Your task to perform on an android device: turn on wifi Image 0: 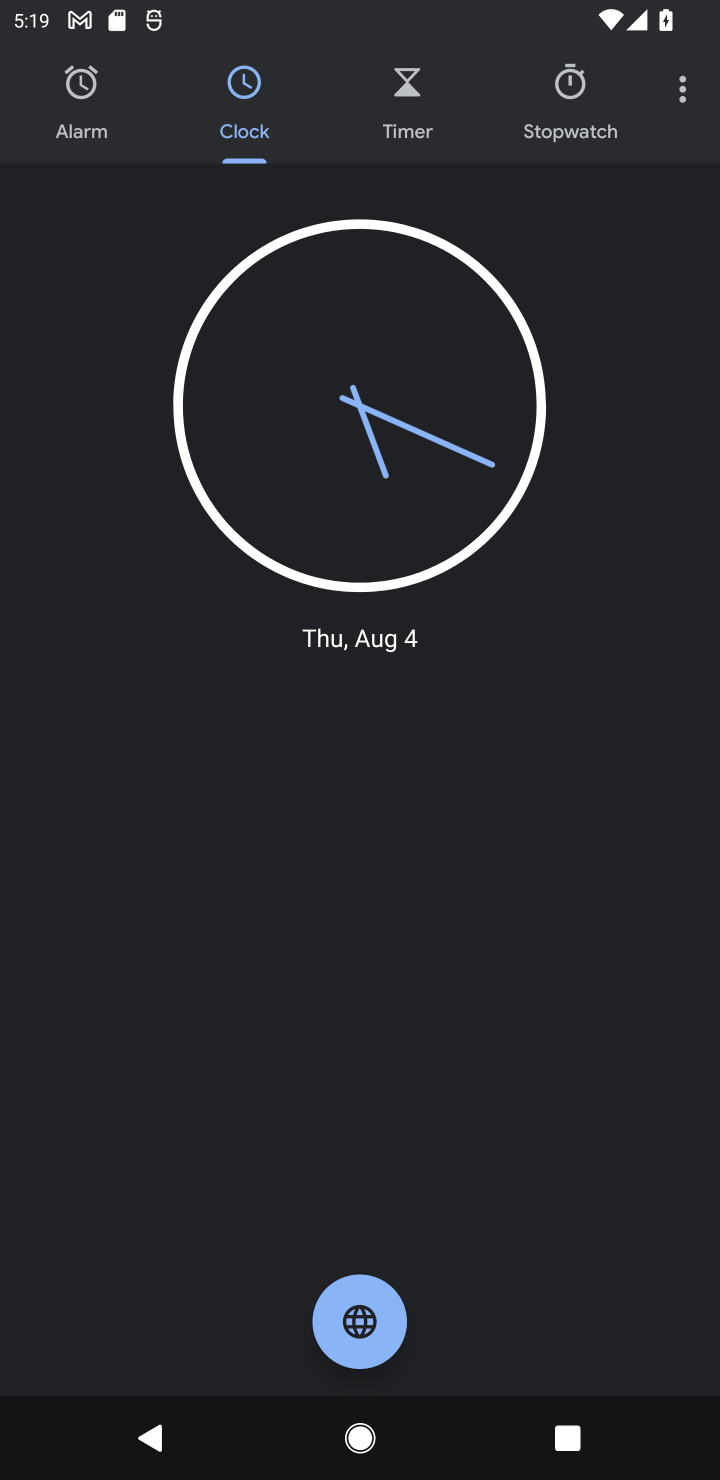
Step 0: press home button
Your task to perform on an android device: turn on wifi Image 1: 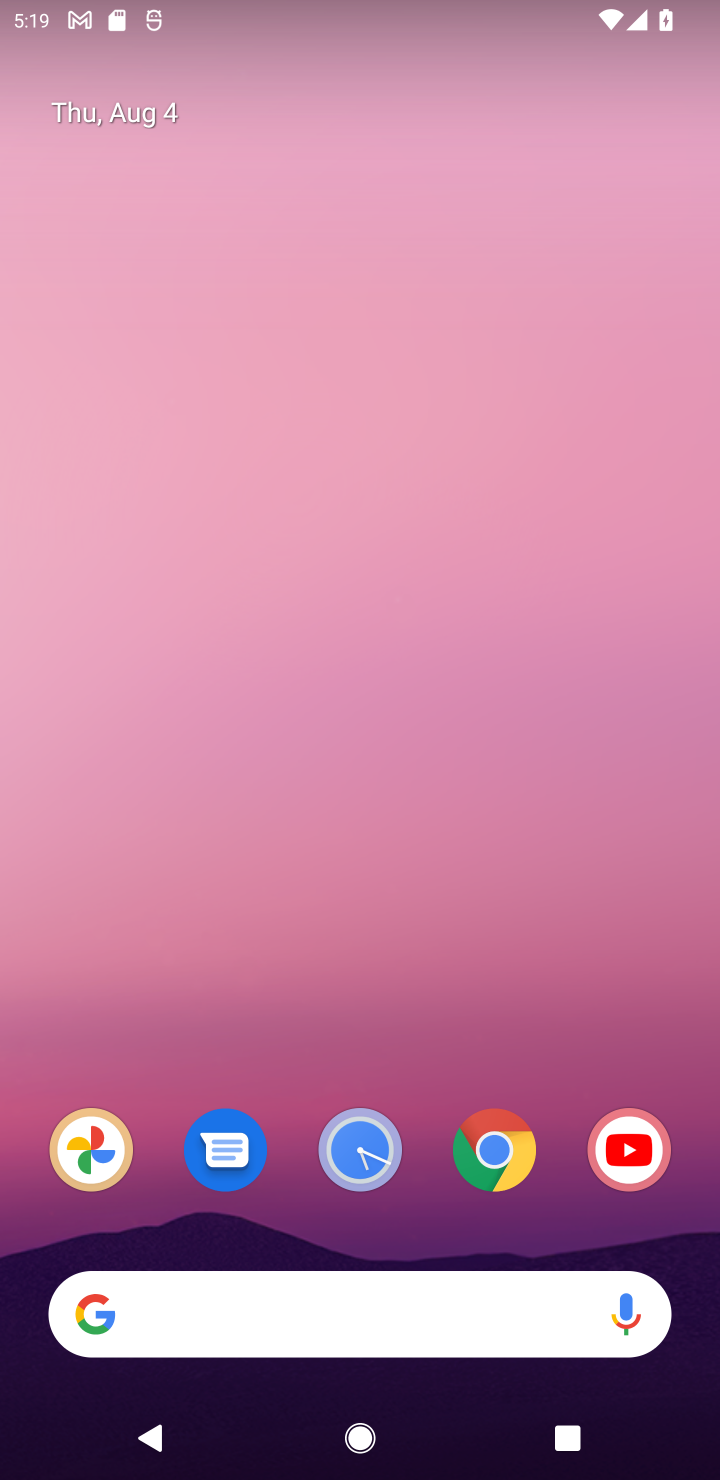
Step 1: drag from (291, 1227) to (515, 2)
Your task to perform on an android device: turn on wifi Image 2: 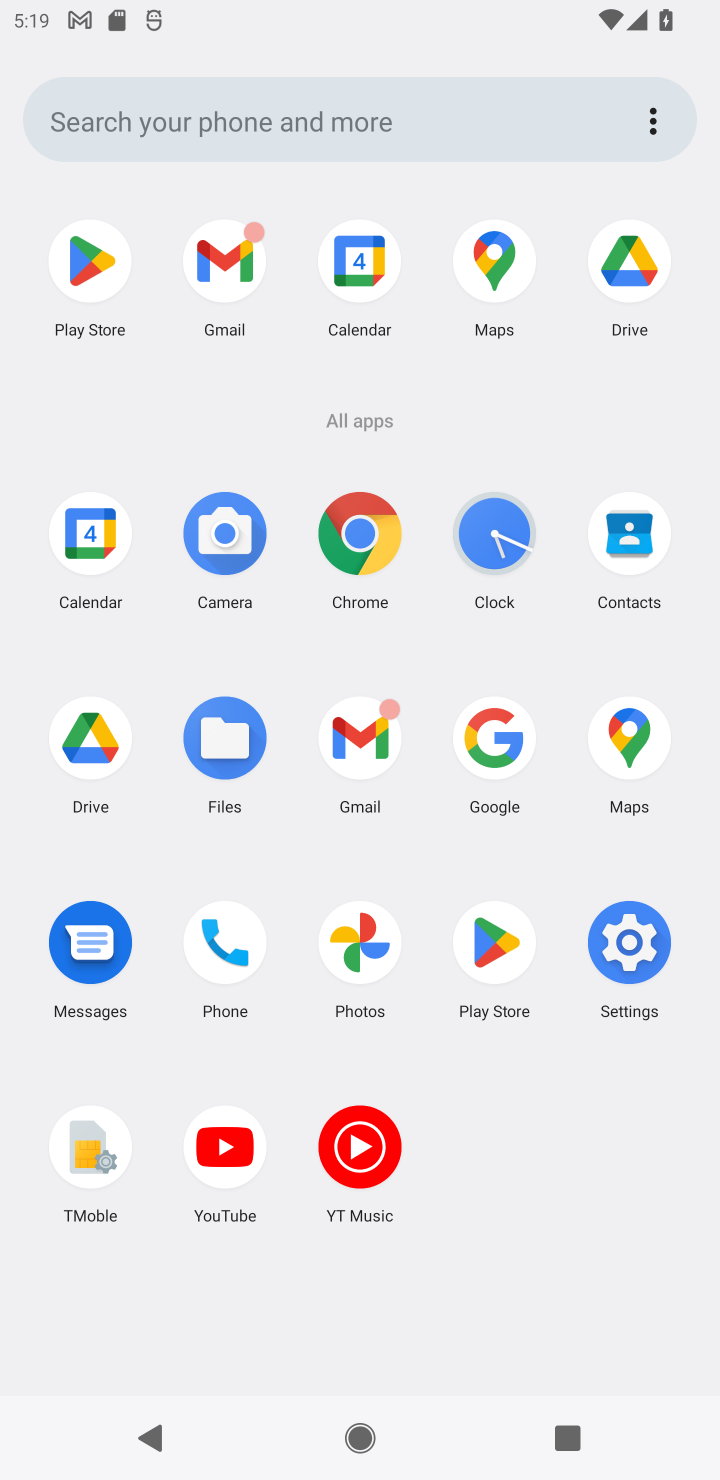
Step 2: click (625, 953)
Your task to perform on an android device: turn on wifi Image 3: 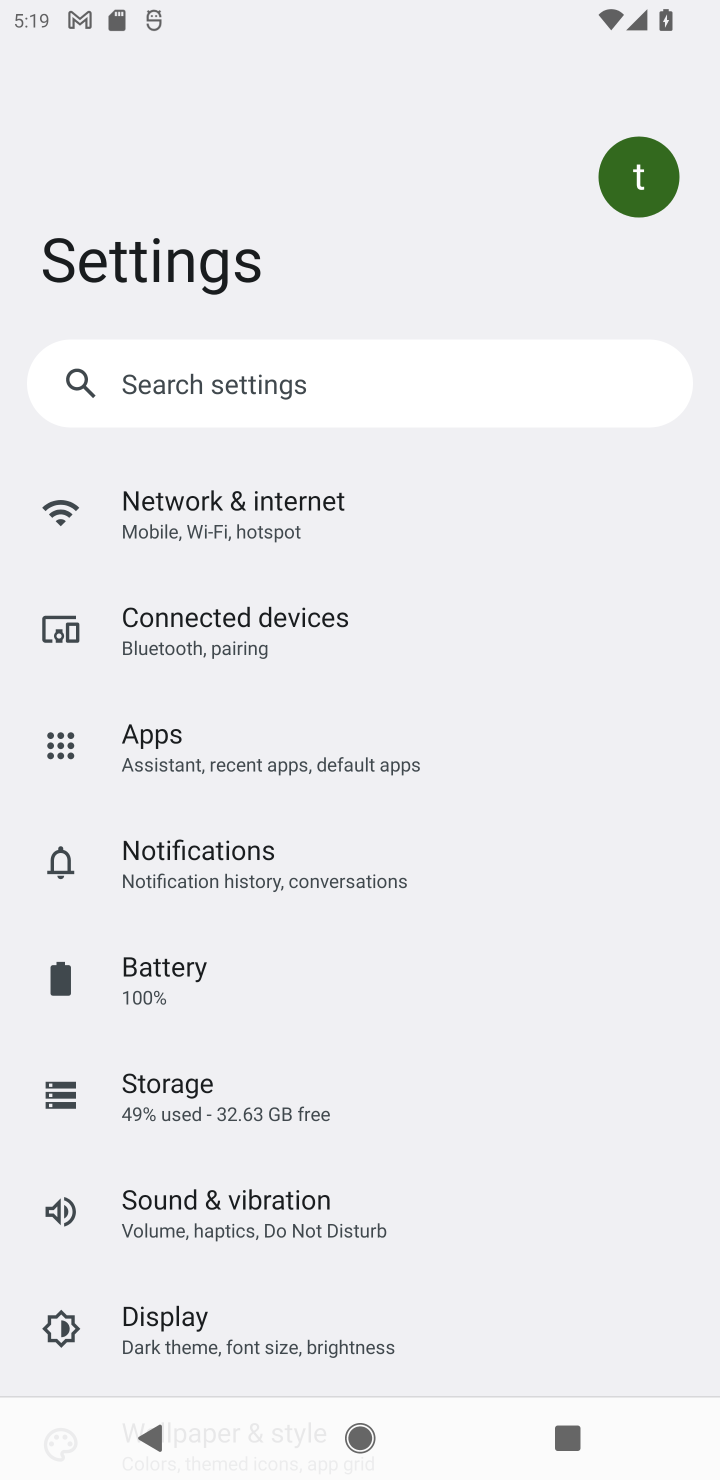
Step 3: click (287, 512)
Your task to perform on an android device: turn on wifi Image 4: 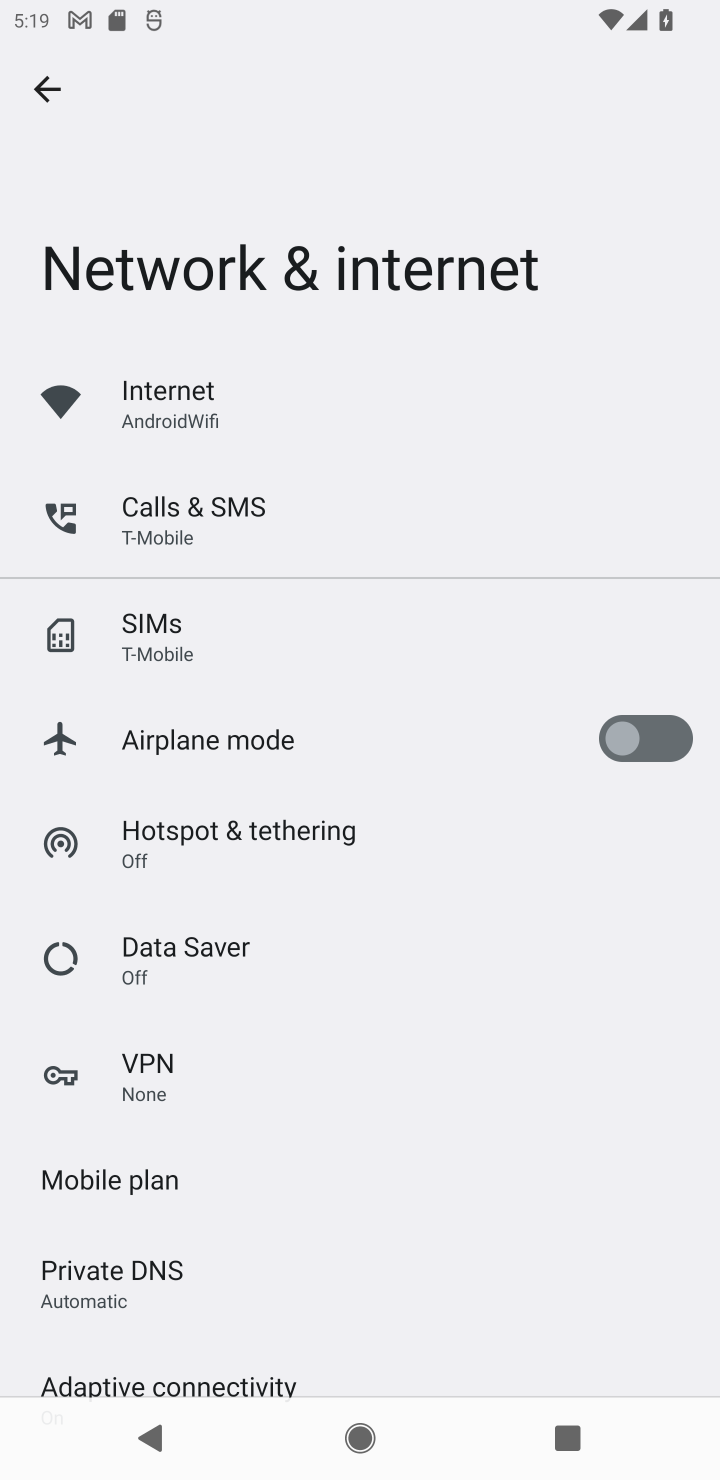
Step 4: click (200, 404)
Your task to perform on an android device: turn on wifi Image 5: 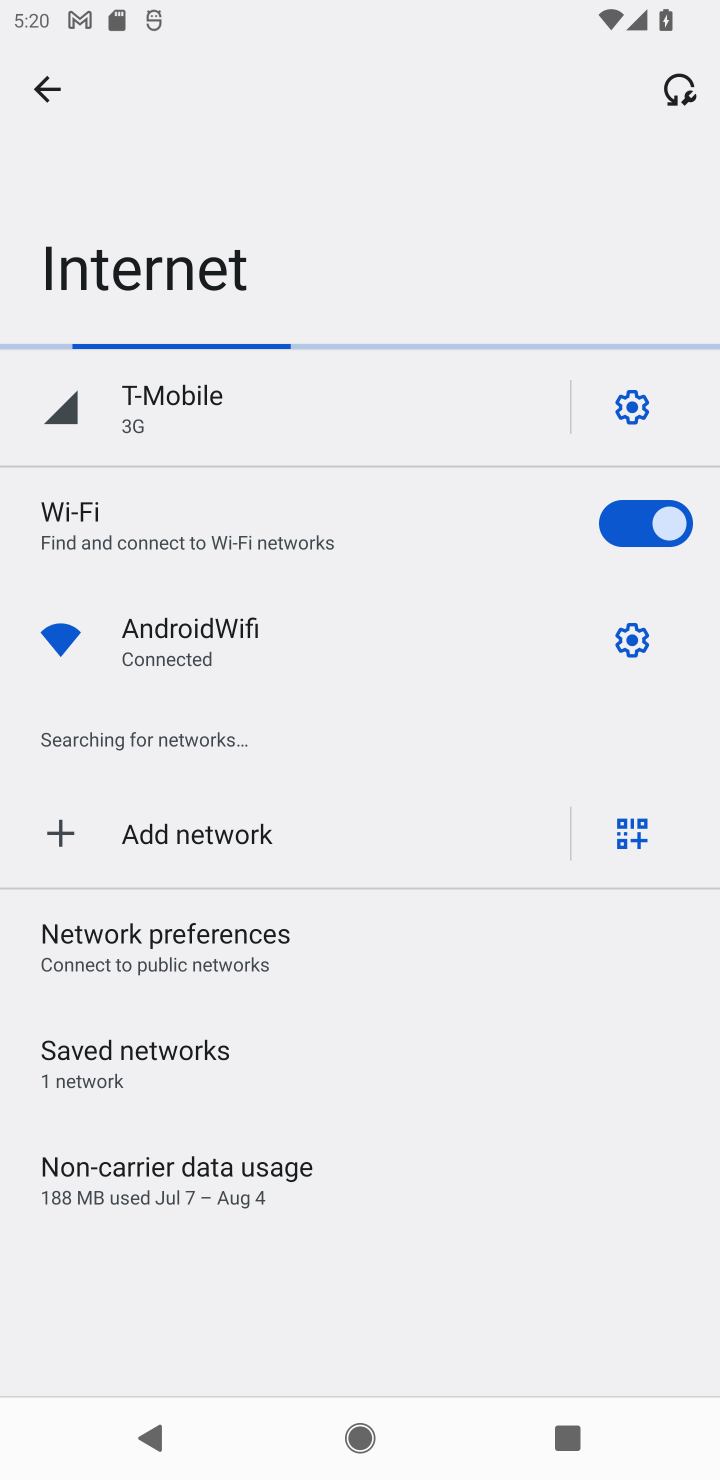
Step 5: task complete